Your task to perform on an android device: turn on improve location accuracy Image 0: 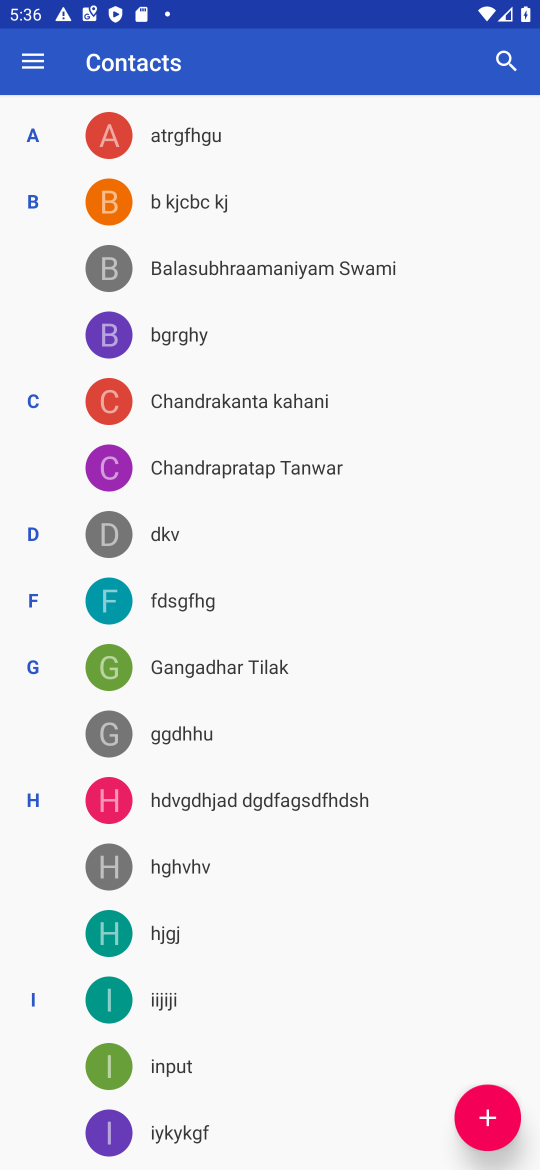
Step 0: press home button
Your task to perform on an android device: turn on improve location accuracy Image 1: 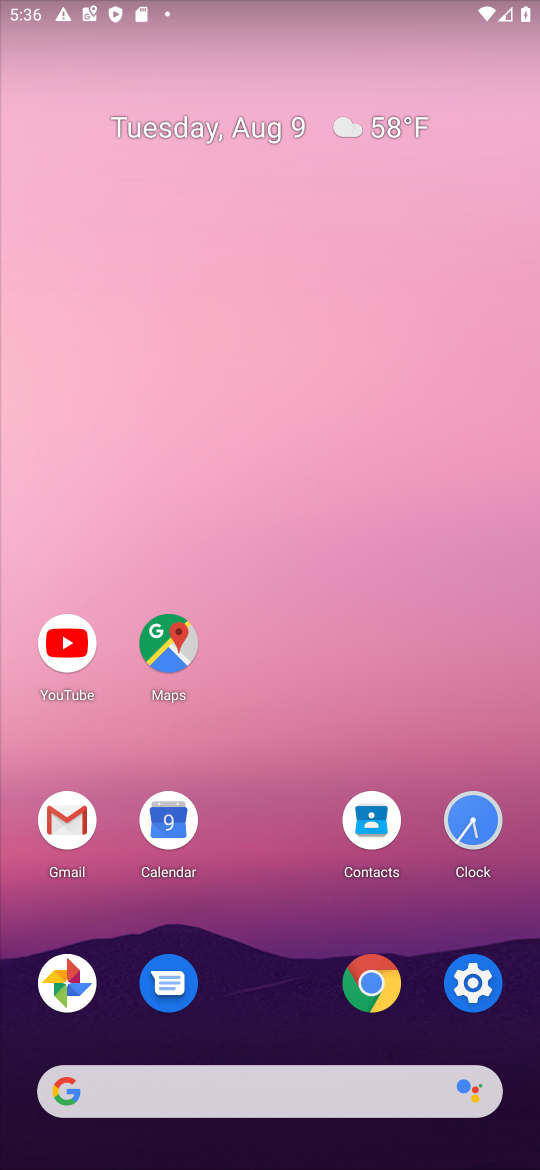
Step 1: click (466, 982)
Your task to perform on an android device: turn on improve location accuracy Image 2: 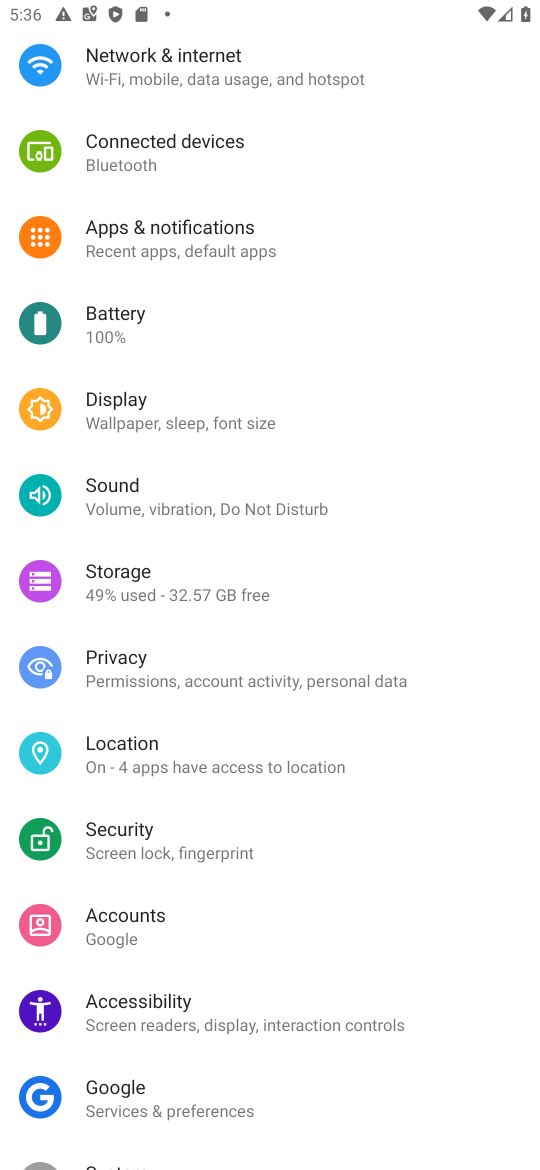
Step 2: click (141, 733)
Your task to perform on an android device: turn on improve location accuracy Image 3: 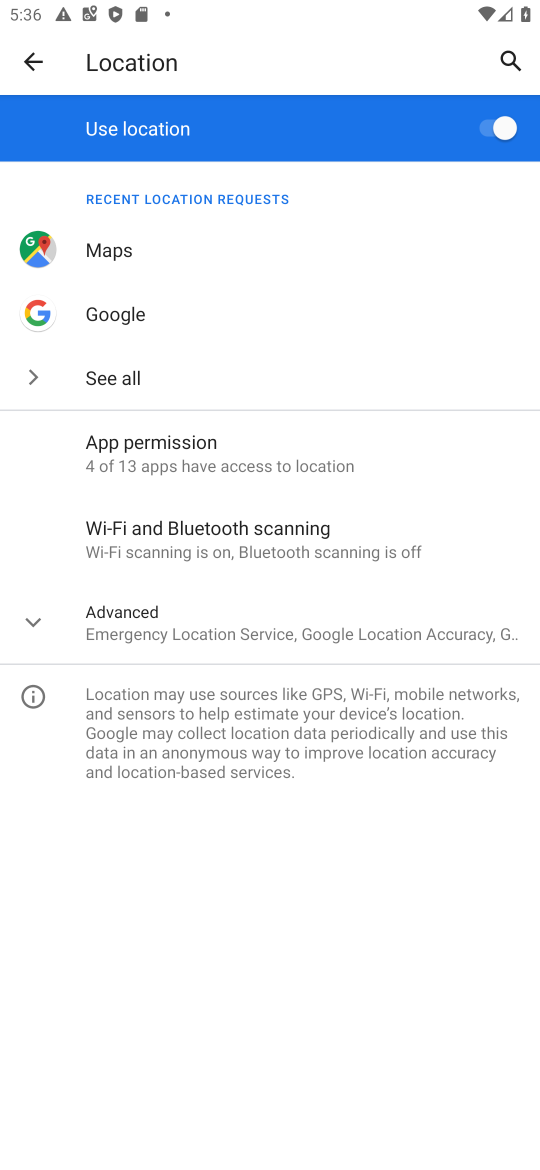
Step 3: click (45, 622)
Your task to perform on an android device: turn on improve location accuracy Image 4: 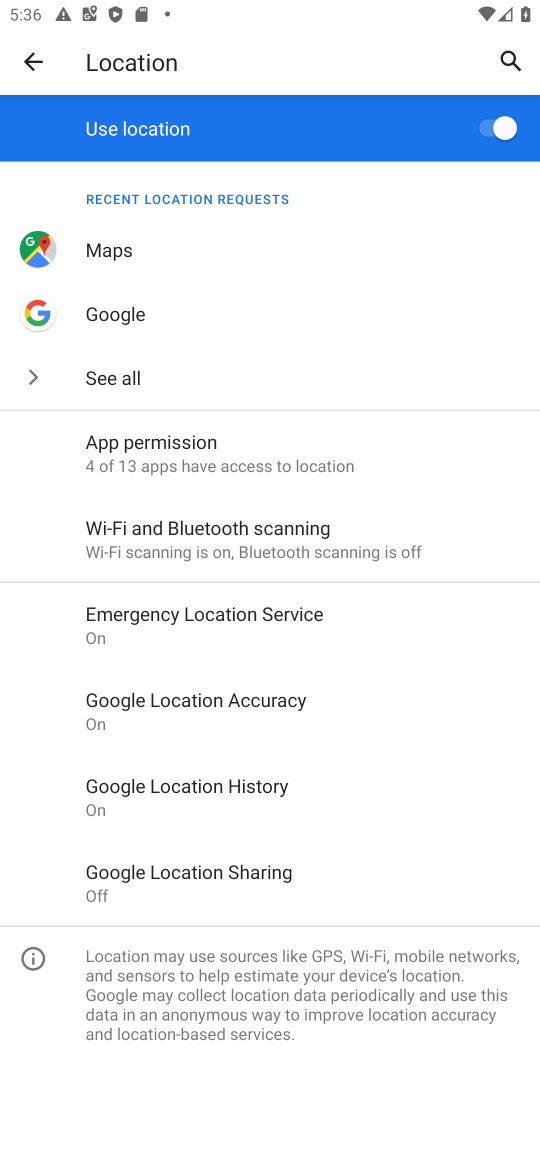
Step 4: click (223, 692)
Your task to perform on an android device: turn on improve location accuracy Image 5: 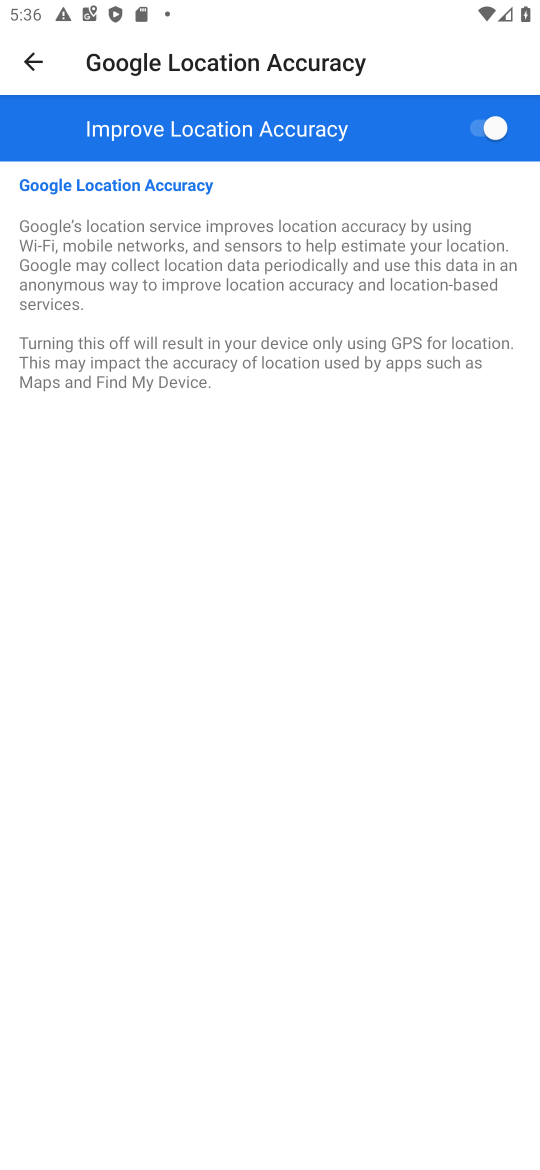
Step 5: task complete